Your task to perform on an android device: toggle notifications settings in the gmail app Image 0: 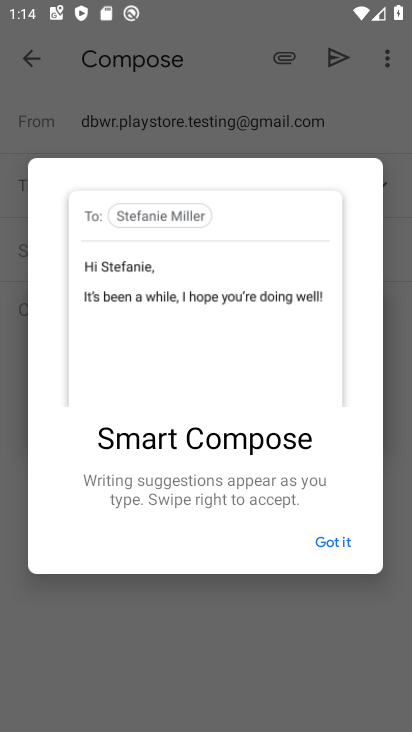
Step 0: press home button
Your task to perform on an android device: toggle notifications settings in the gmail app Image 1: 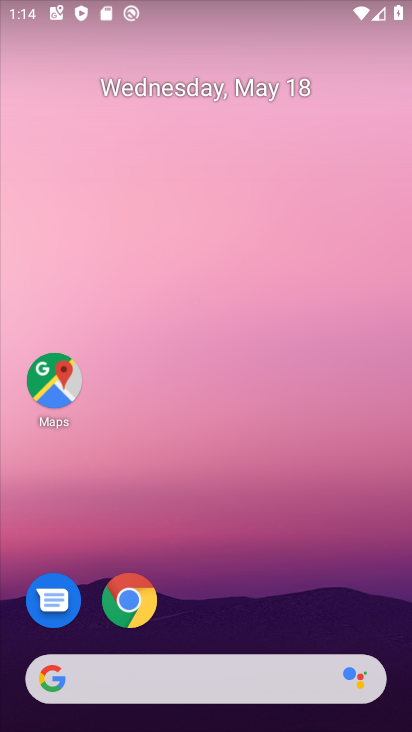
Step 1: drag from (227, 601) to (204, 153)
Your task to perform on an android device: toggle notifications settings in the gmail app Image 2: 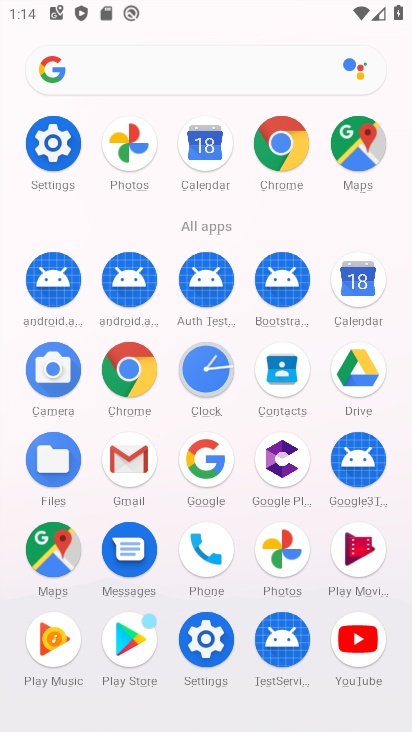
Step 2: click (129, 458)
Your task to perform on an android device: toggle notifications settings in the gmail app Image 3: 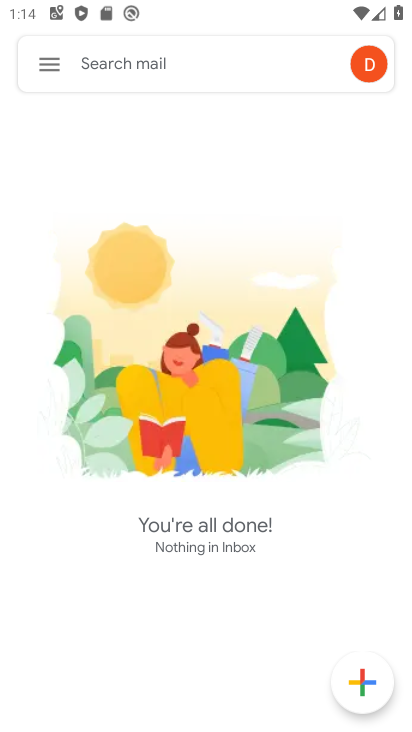
Step 3: click (50, 62)
Your task to perform on an android device: toggle notifications settings in the gmail app Image 4: 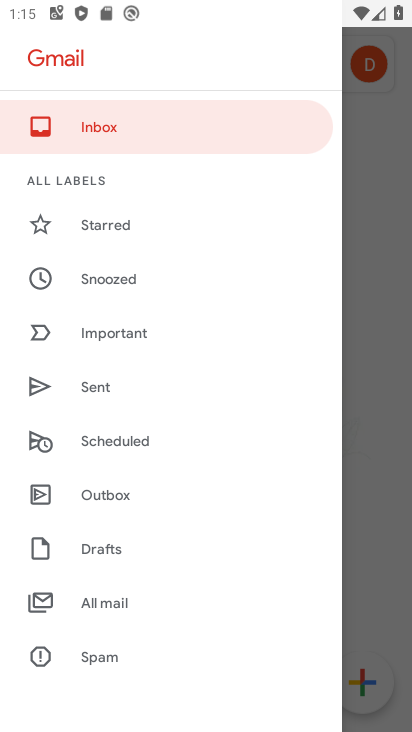
Step 4: drag from (126, 511) to (133, 408)
Your task to perform on an android device: toggle notifications settings in the gmail app Image 5: 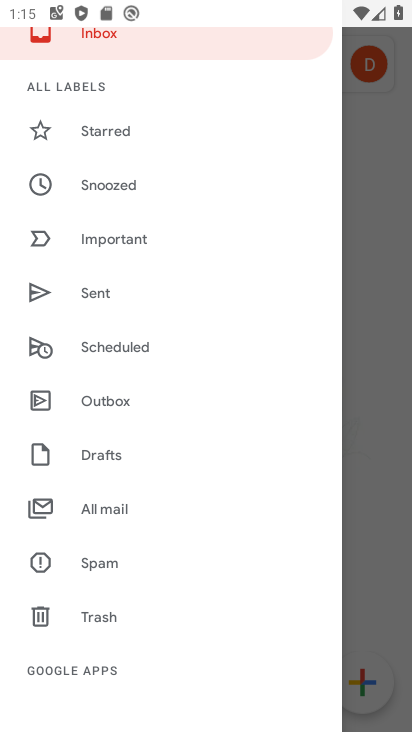
Step 5: drag from (105, 539) to (118, 431)
Your task to perform on an android device: toggle notifications settings in the gmail app Image 6: 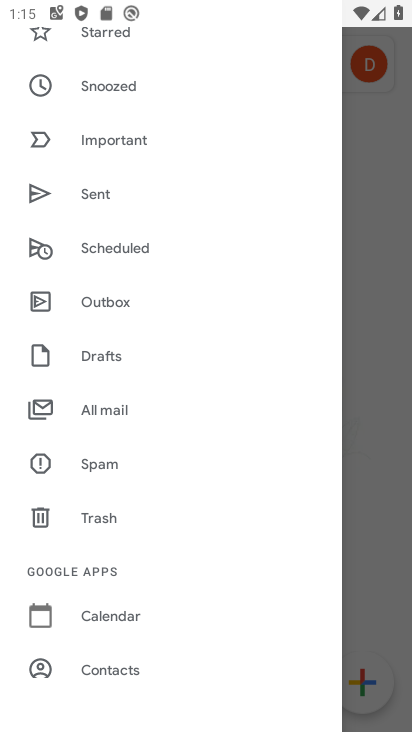
Step 6: drag from (79, 583) to (118, 470)
Your task to perform on an android device: toggle notifications settings in the gmail app Image 7: 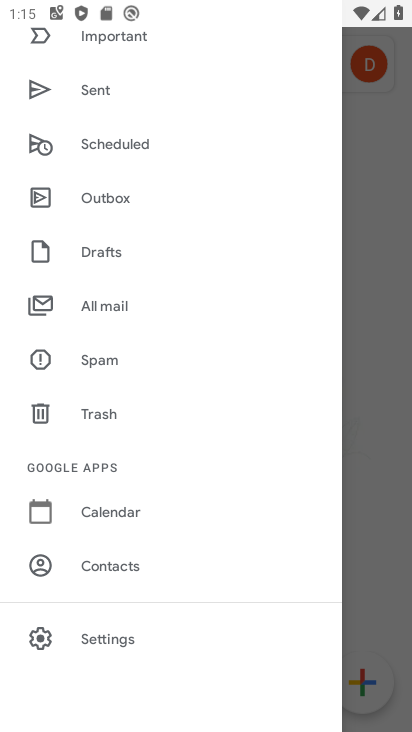
Step 7: click (104, 641)
Your task to perform on an android device: toggle notifications settings in the gmail app Image 8: 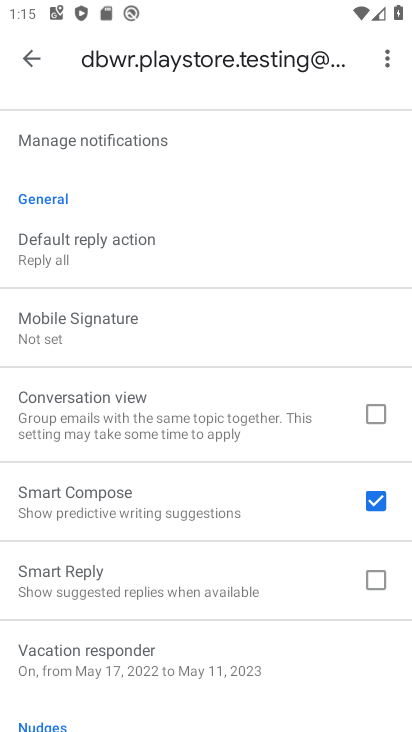
Step 8: click (114, 142)
Your task to perform on an android device: toggle notifications settings in the gmail app Image 9: 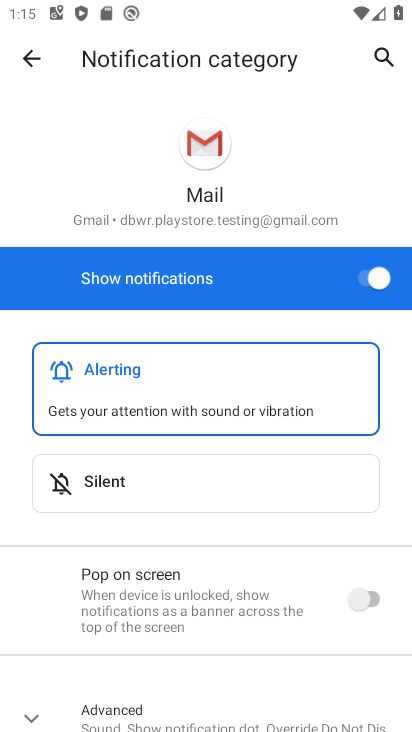
Step 9: click (383, 278)
Your task to perform on an android device: toggle notifications settings in the gmail app Image 10: 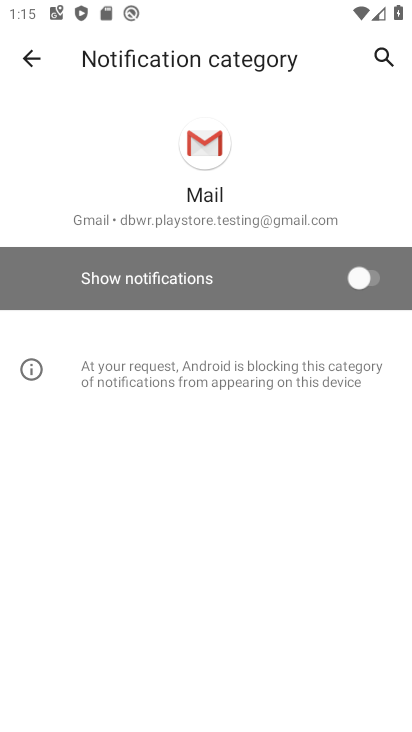
Step 10: task complete